Your task to perform on an android device: Clear all items from cart on walmart. Image 0: 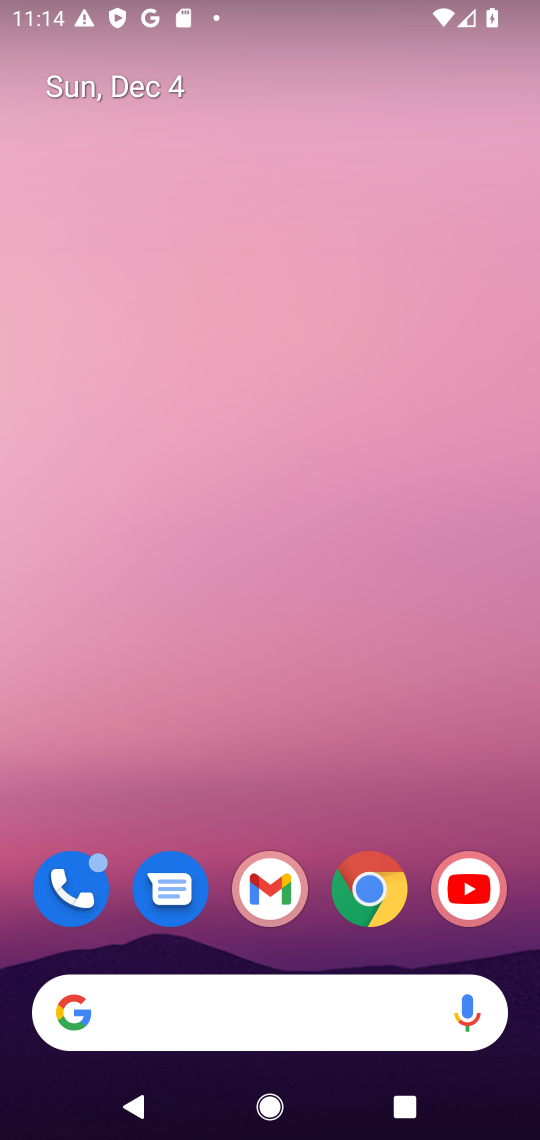
Step 0: click (380, 896)
Your task to perform on an android device: Clear all items from cart on walmart. Image 1: 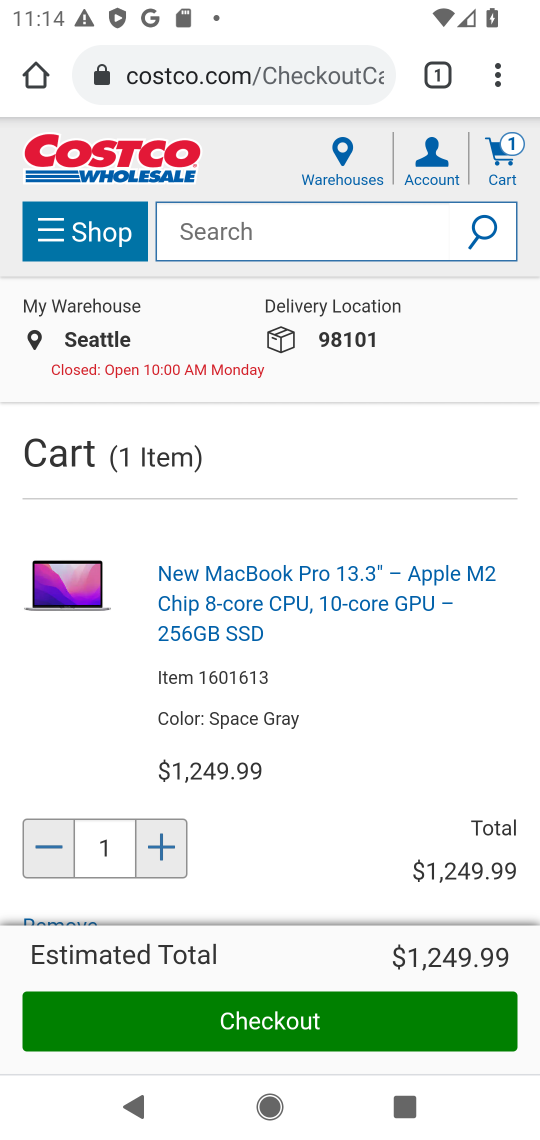
Step 1: click (283, 64)
Your task to perform on an android device: Clear all items from cart on walmart. Image 2: 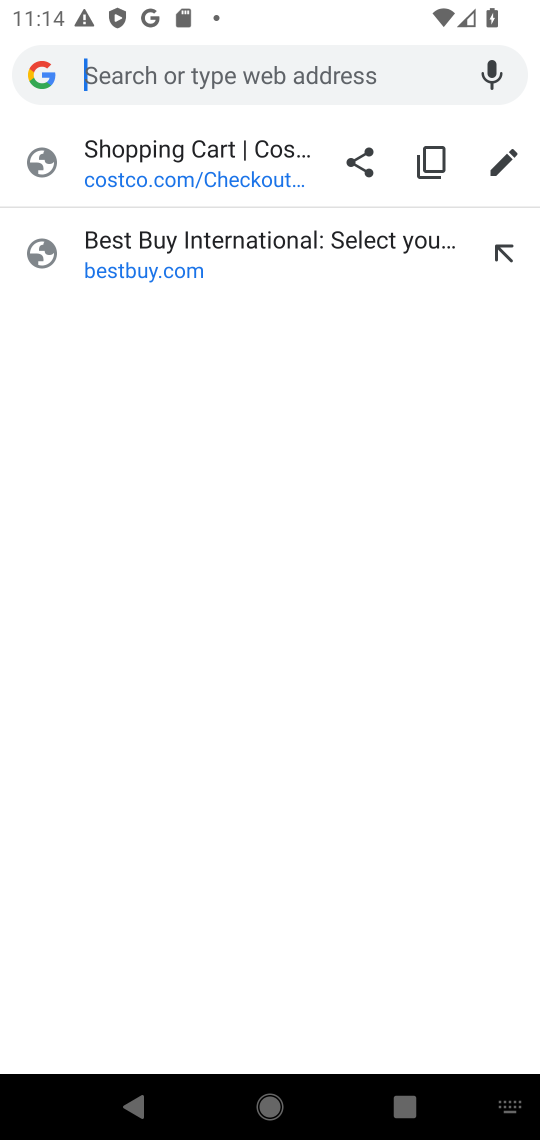
Step 2: type "walmart"
Your task to perform on an android device: Clear all items from cart on walmart. Image 3: 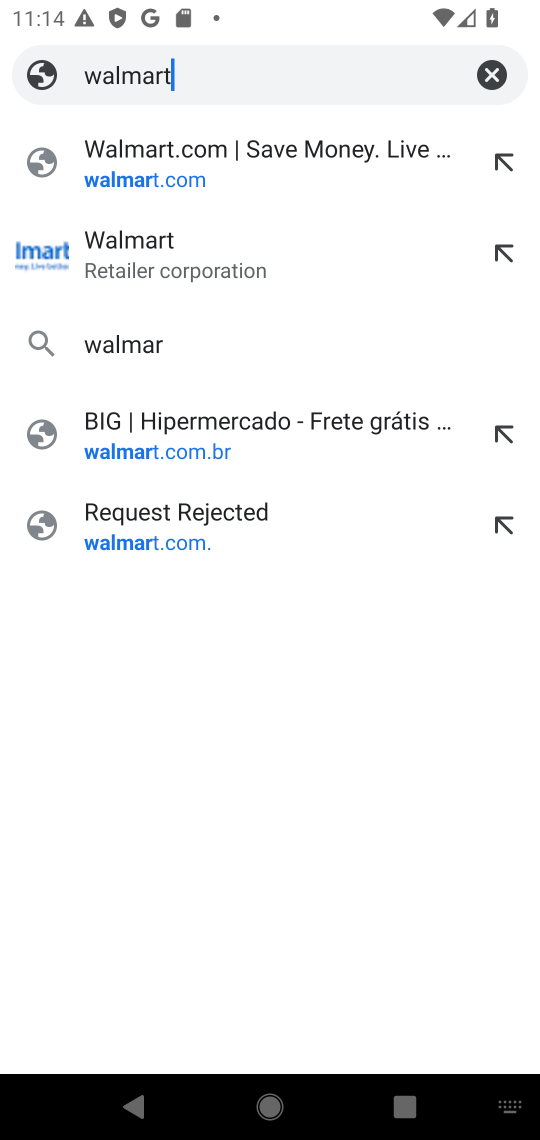
Step 3: press enter
Your task to perform on an android device: Clear all items from cart on walmart. Image 4: 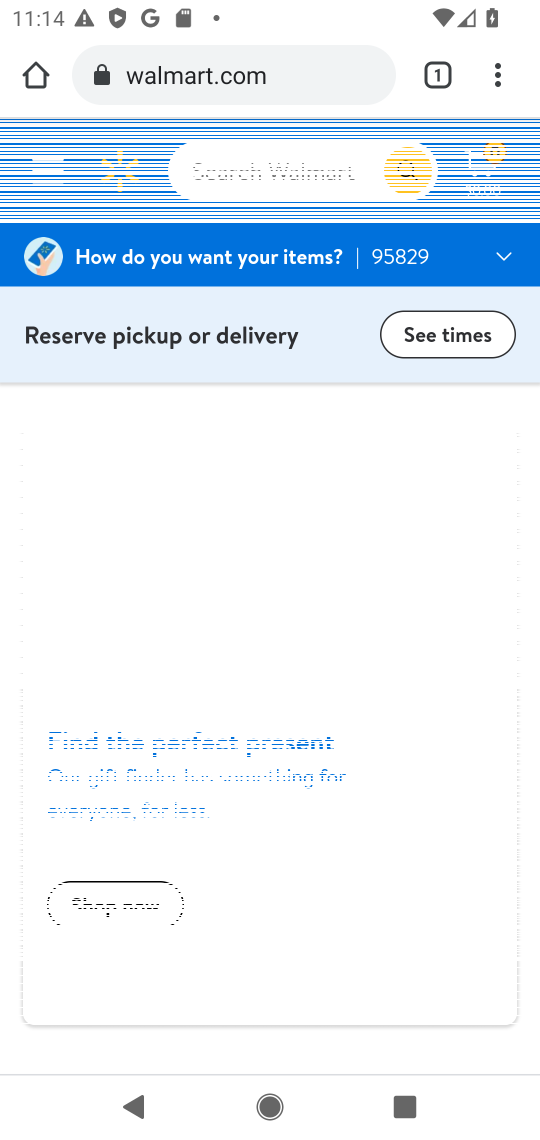
Step 4: click (472, 170)
Your task to perform on an android device: Clear all items from cart on walmart. Image 5: 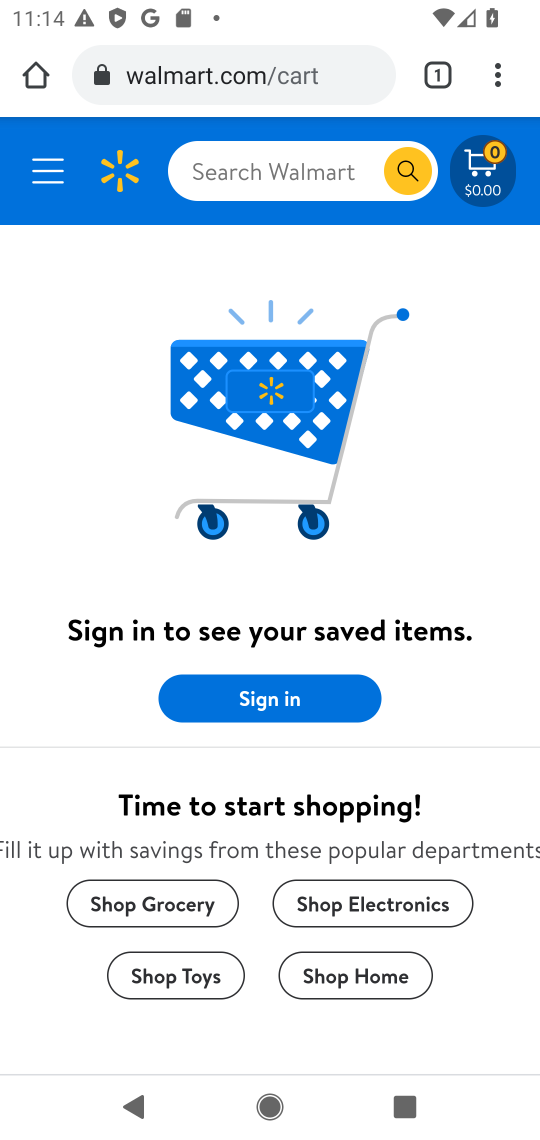
Step 5: task complete